Your task to perform on an android device: Add "usb-b" to the cart on bestbuy Image 0: 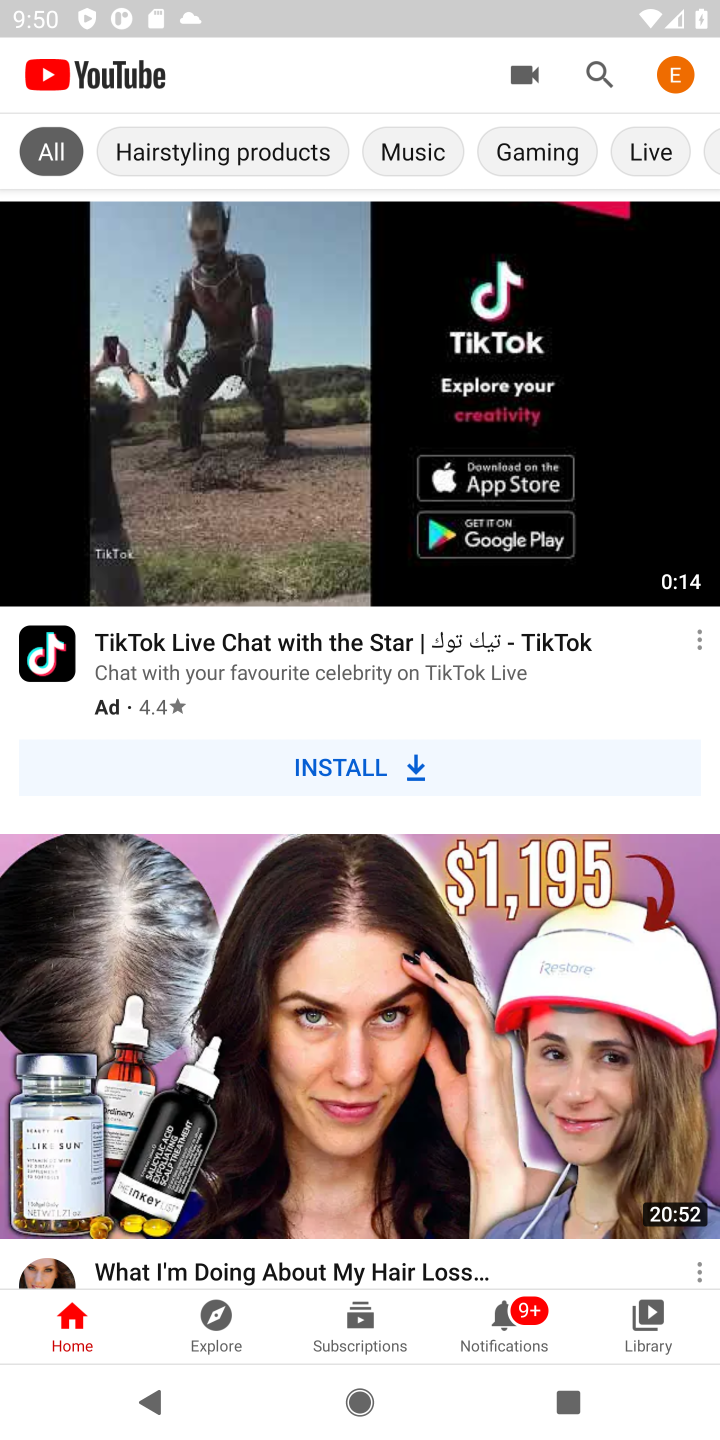
Step 0: press home button
Your task to perform on an android device: Add "usb-b" to the cart on bestbuy Image 1: 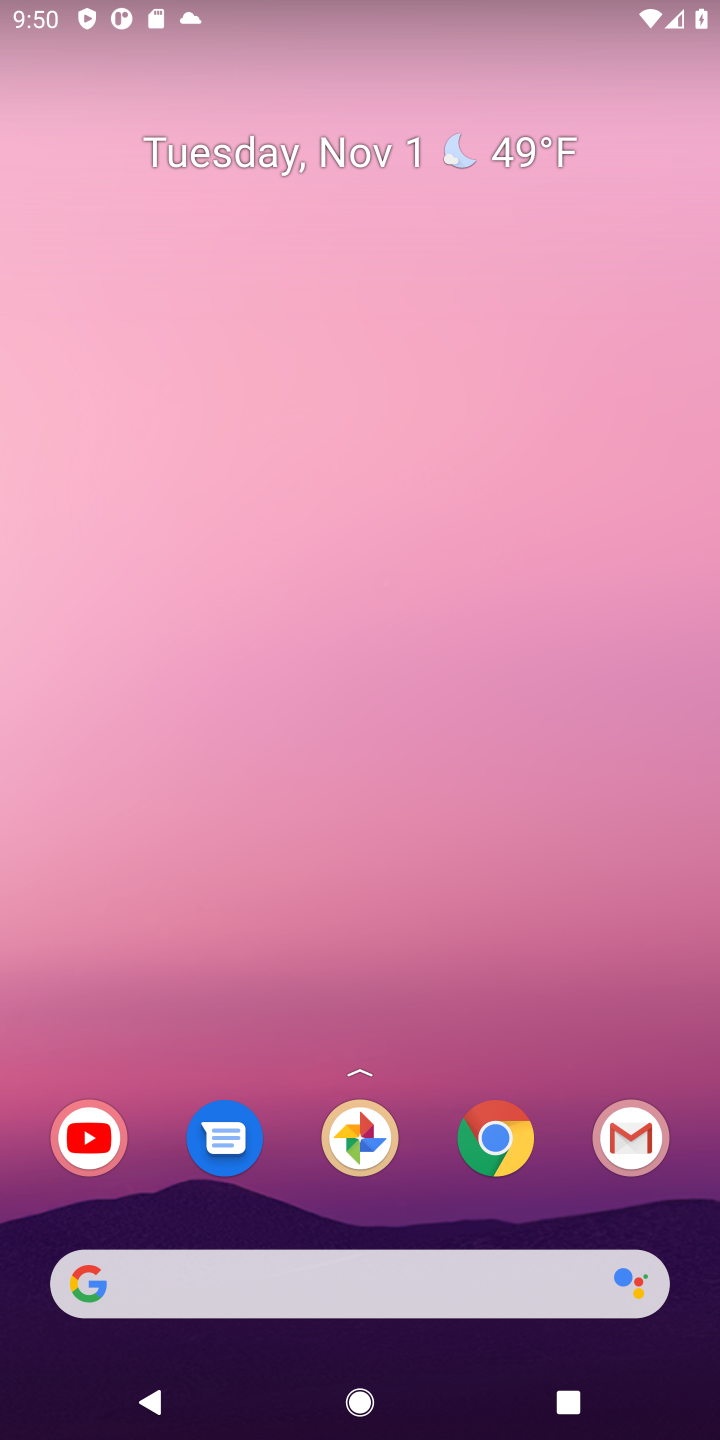
Step 1: click (498, 1135)
Your task to perform on an android device: Add "usb-b" to the cart on bestbuy Image 2: 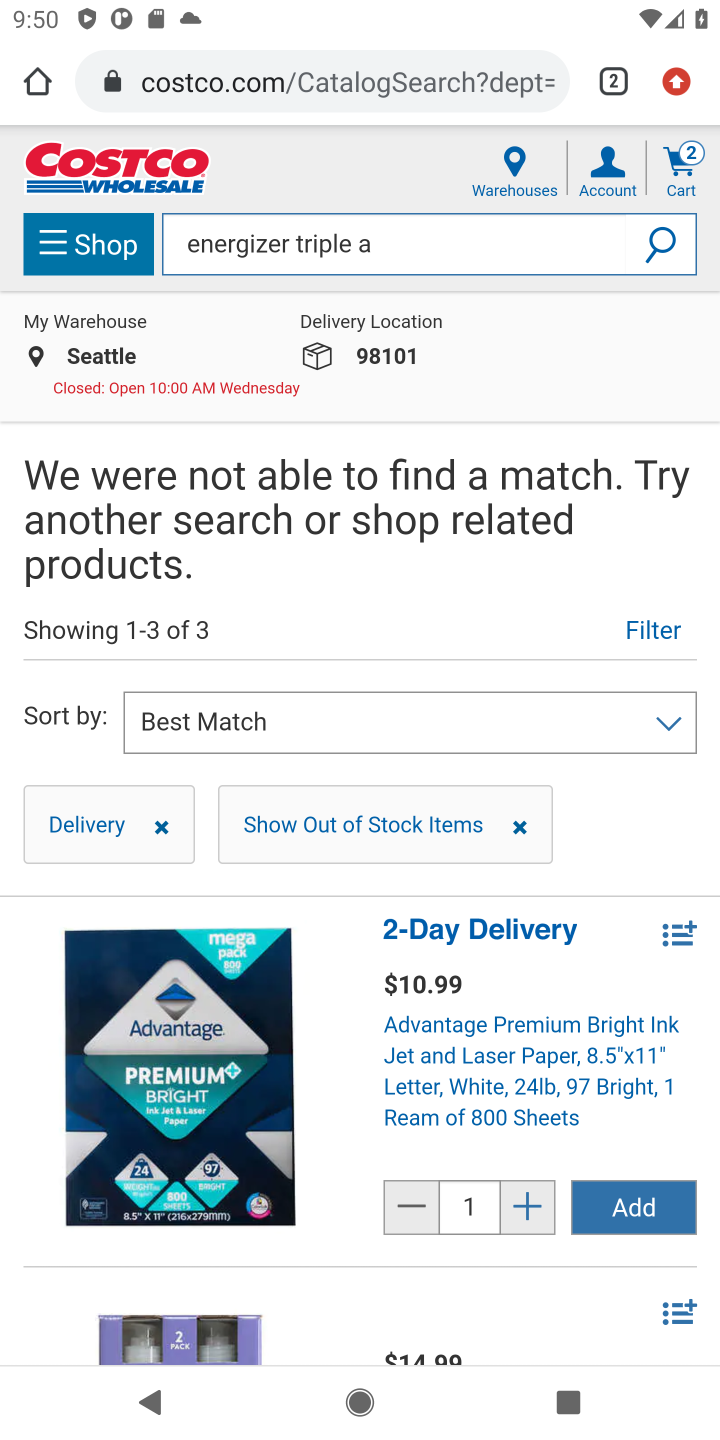
Step 2: click (392, 67)
Your task to perform on an android device: Add "usb-b" to the cart on bestbuy Image 3: 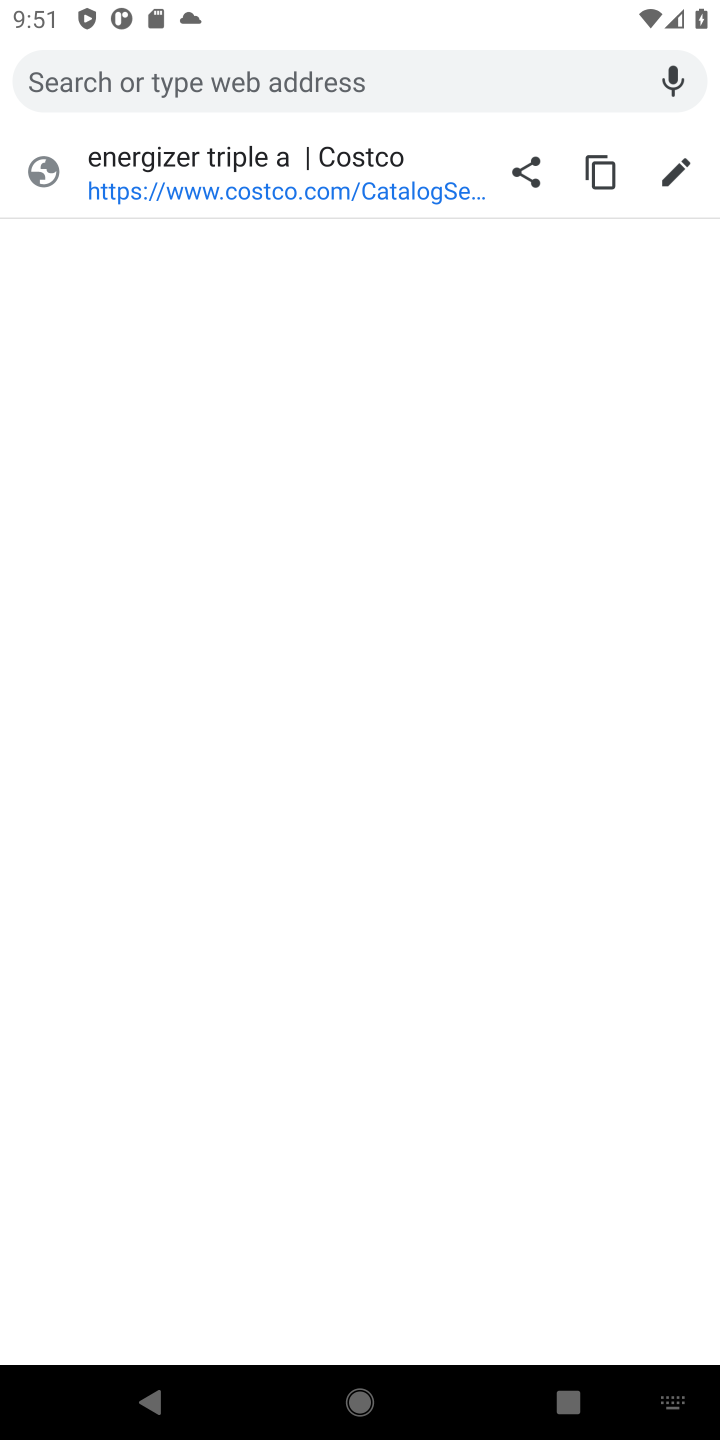
Step 3: type "bestbuy"
Your task to perform on an android device: Add "usb-b" to the cart on bestbuy Image 4: 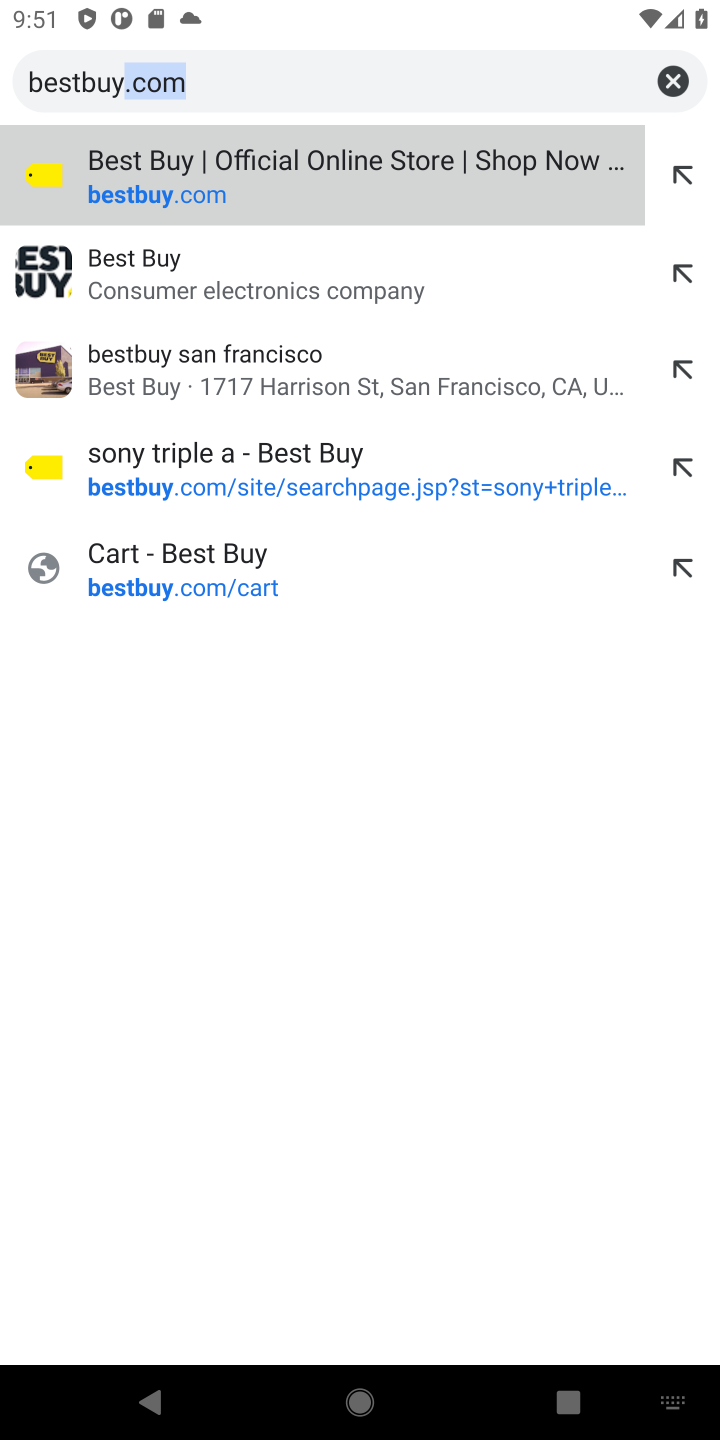
Step 4: click (140, 276)
Your task to perform on an android device: Add "usb-b" to the cart on bestbuy Image 5: 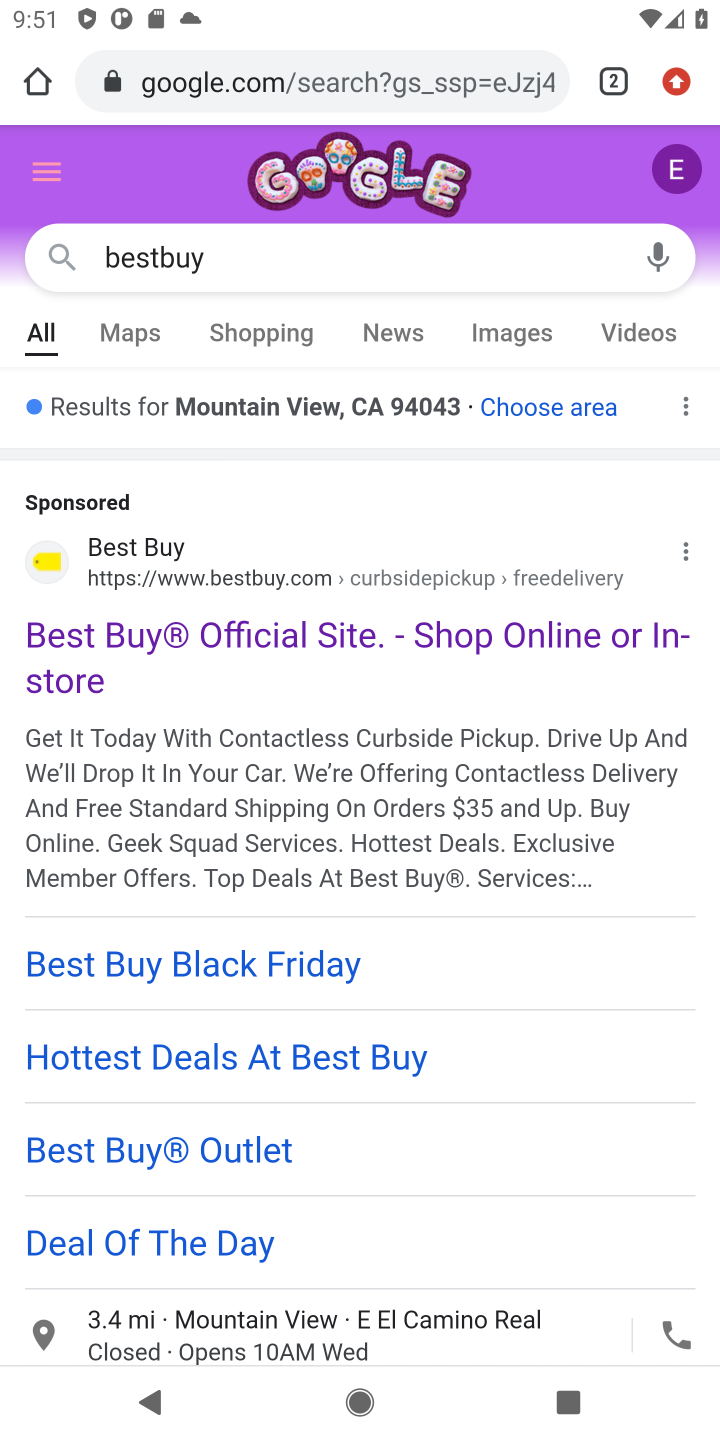
Step 5: drag from (369, 1150) to (381, 483)
Your task to perform on an android device: Add "usb-b" to the cart on bestbuy Image 6: 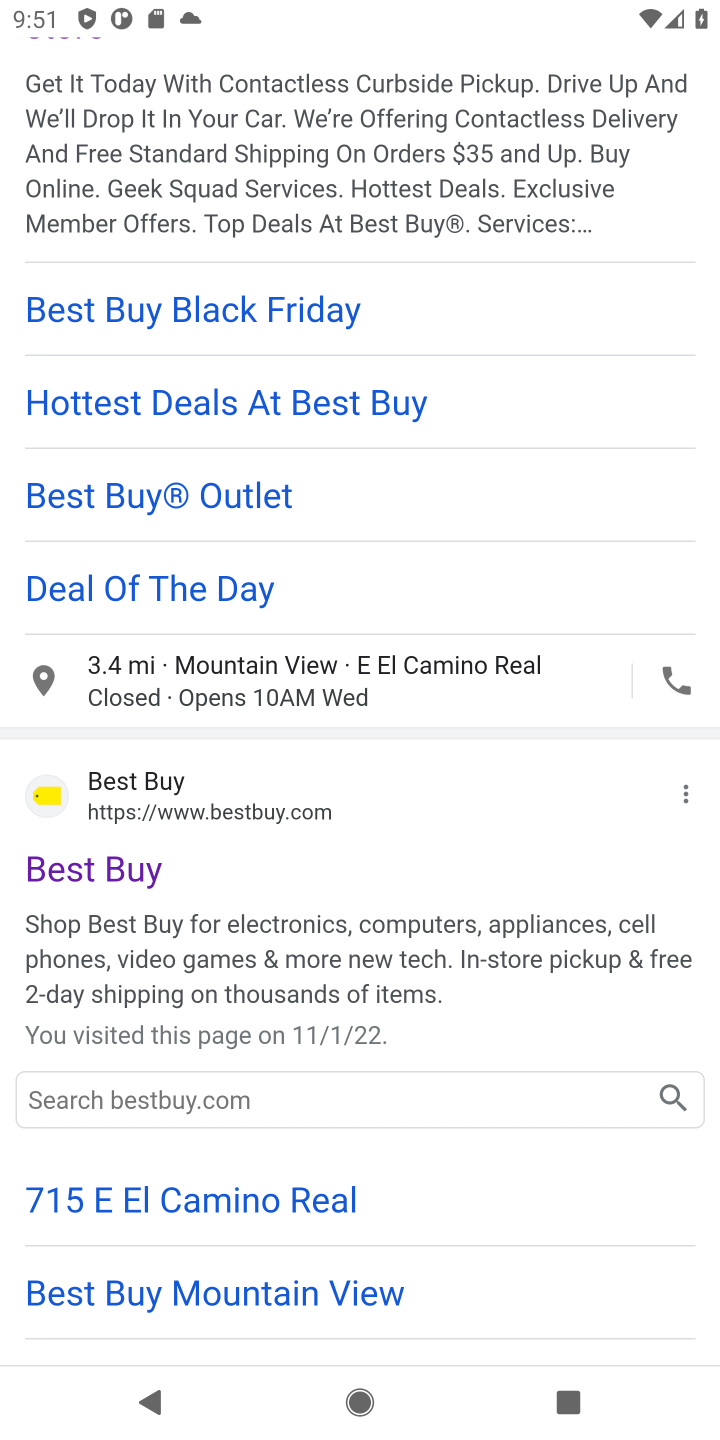
Step 6: click (158, 878)
Your task to perform on an android device: Add "usb-b" to the cart on bestbuy Image 7: 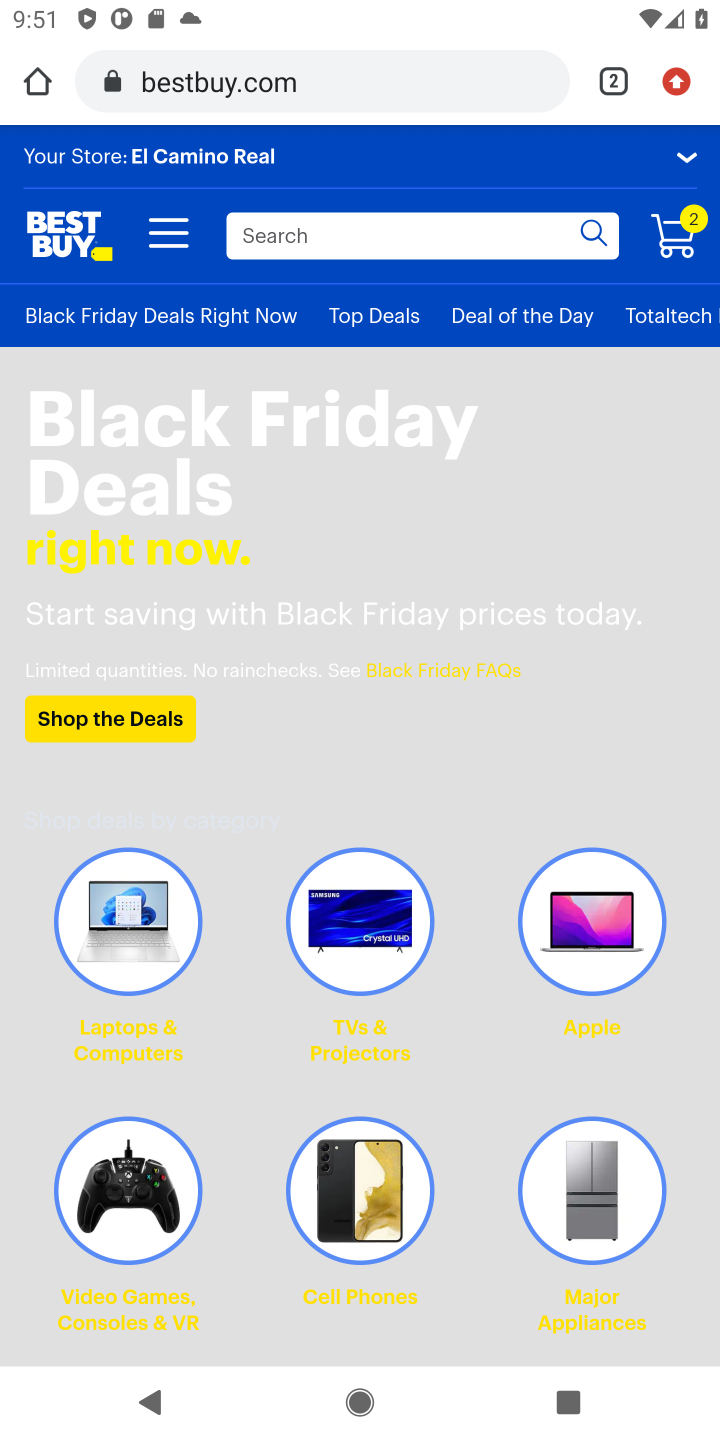
Step 7: click (305, 218)
Your task to perform on an android device: Add "usb-b" to the cart on bestbuy Image 8: 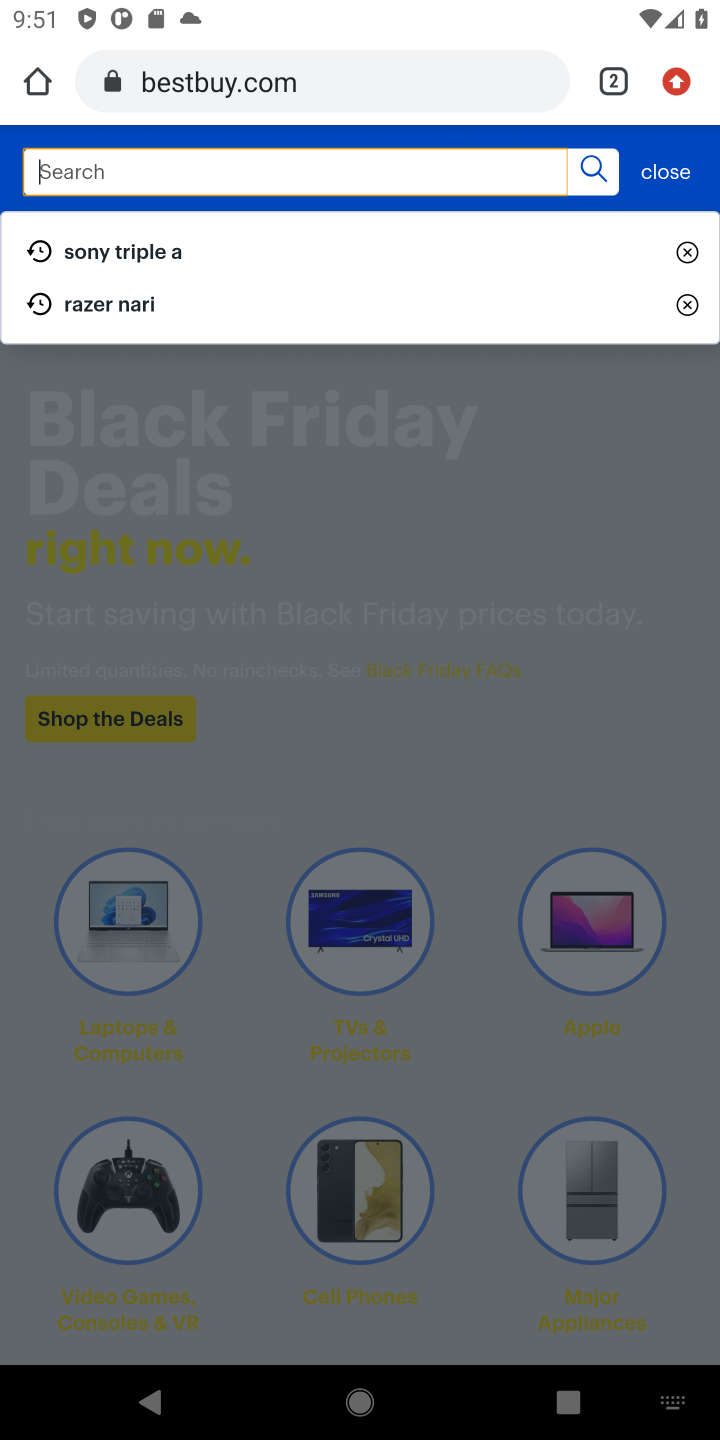
Step 8: type "usb-b"
Your task to perform on an android device: Add "usb-b" to the cart on bestbuy Image 9: 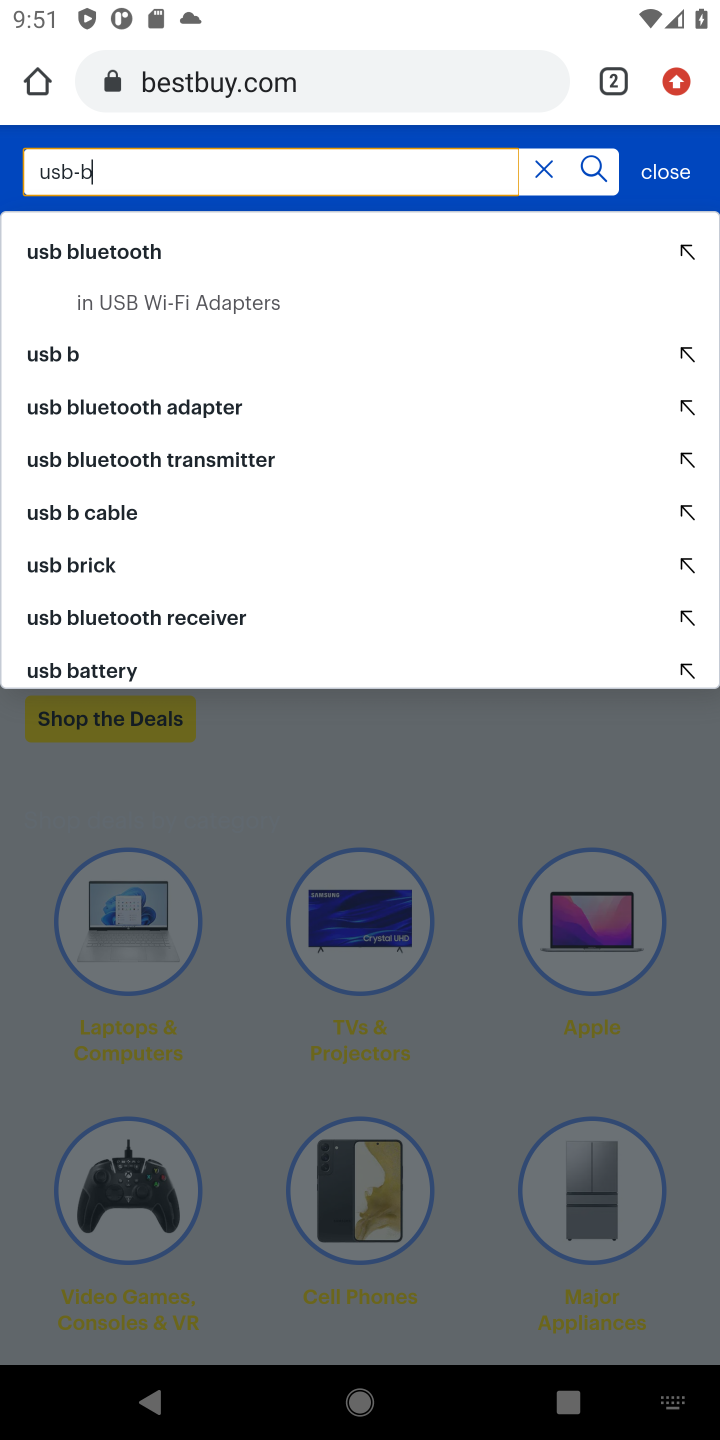
Step 9: click (597, 166)
Your task to perform on an android device: Add "usb-b" to the cart on bestbuy Image 10: 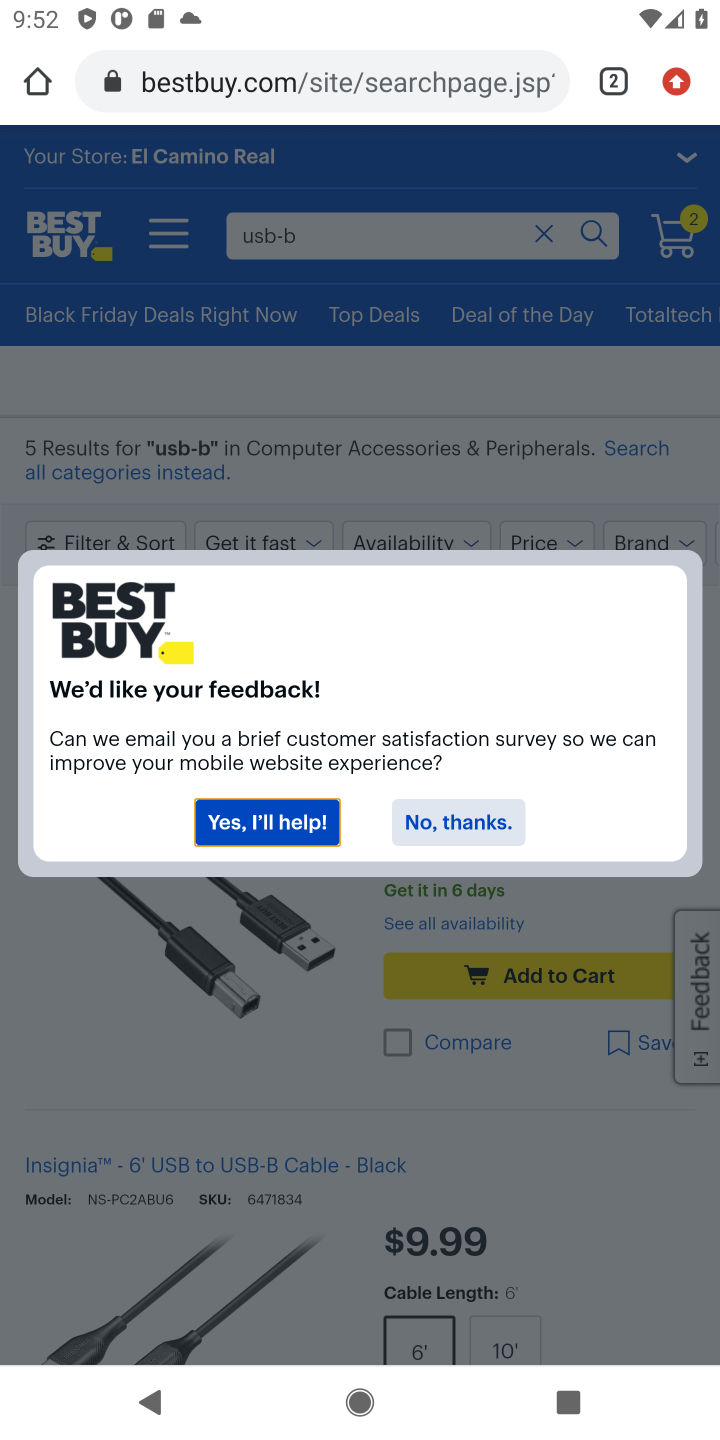
Step 10: click (435, 829)
Your task to perform on an android device: Add "usb-b" to the cart on bestbuy Image 11: 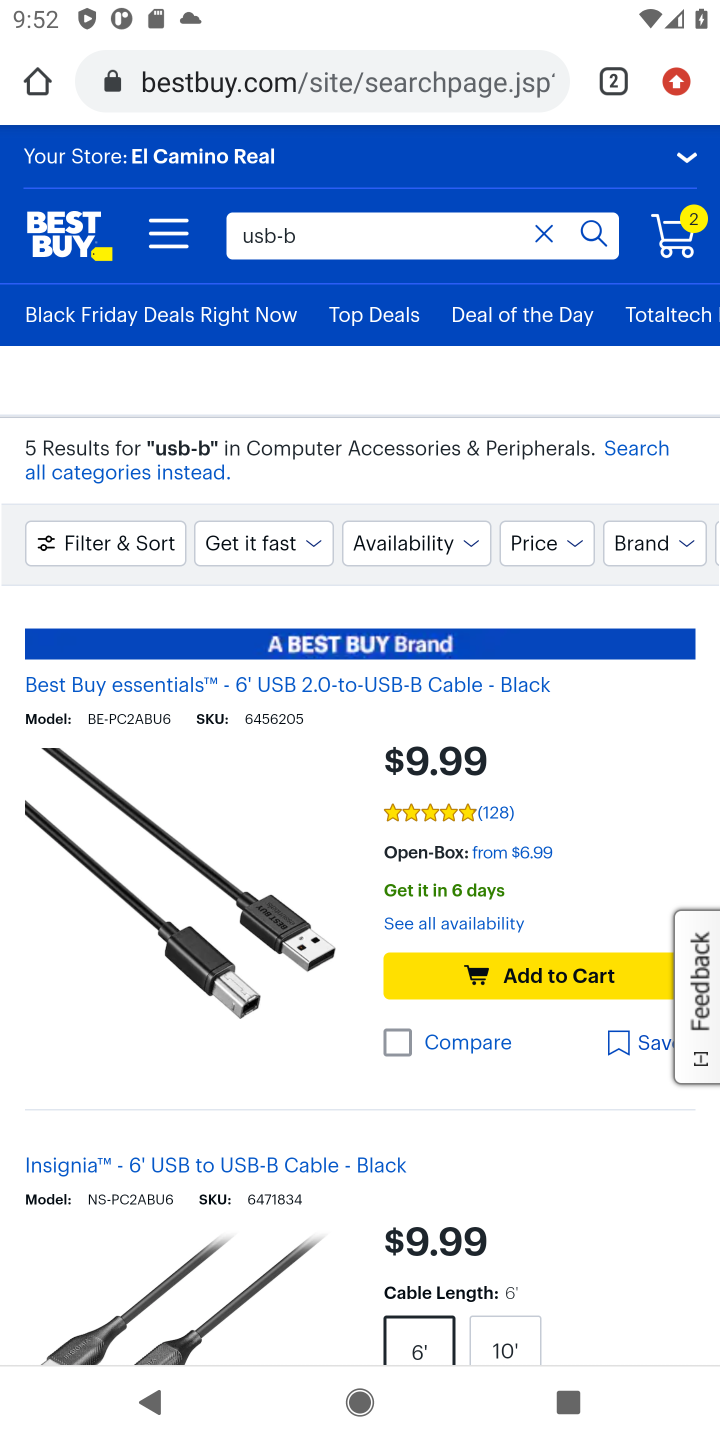
Step 11: click (492, 973)
Your task to perform on an android device: Add "usb-b" to the cart on bestbuy Image 12: 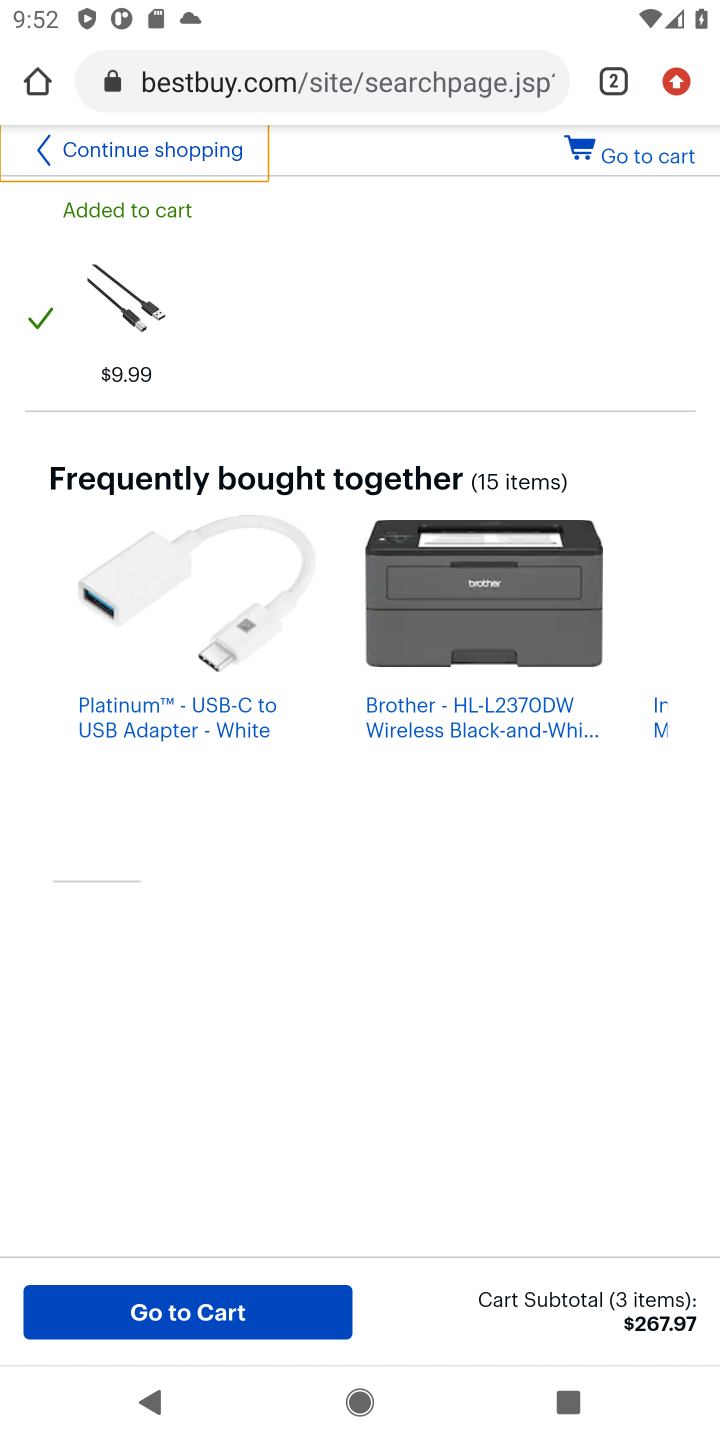
Step 12: click (191, 1308)
Your task to perform on an android device: Add "usb-b" to the cart on bestbuy Image 13: 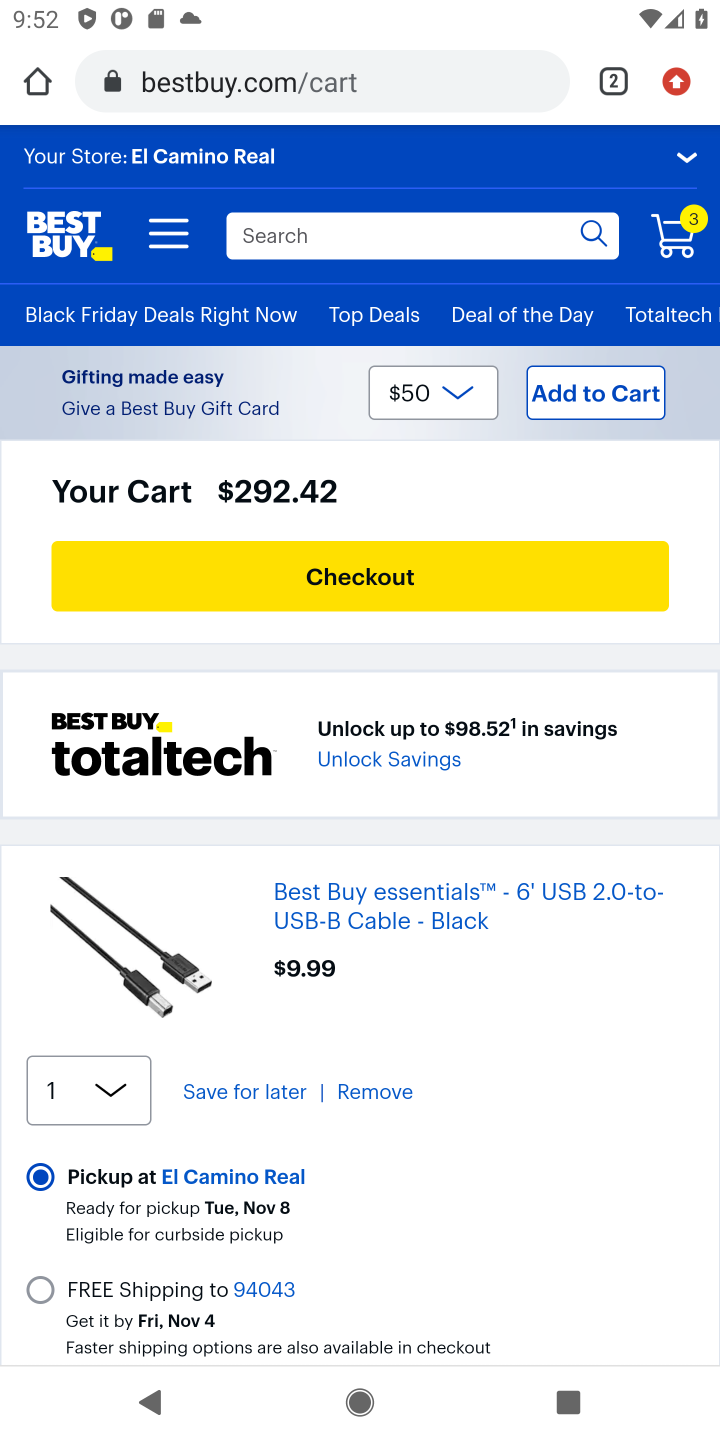
Step 13: task complete